Your task to perform on an android device: Clear all items from cart on target. Add amazon basics triple a to the cart on target, then select checkout. Image 0: 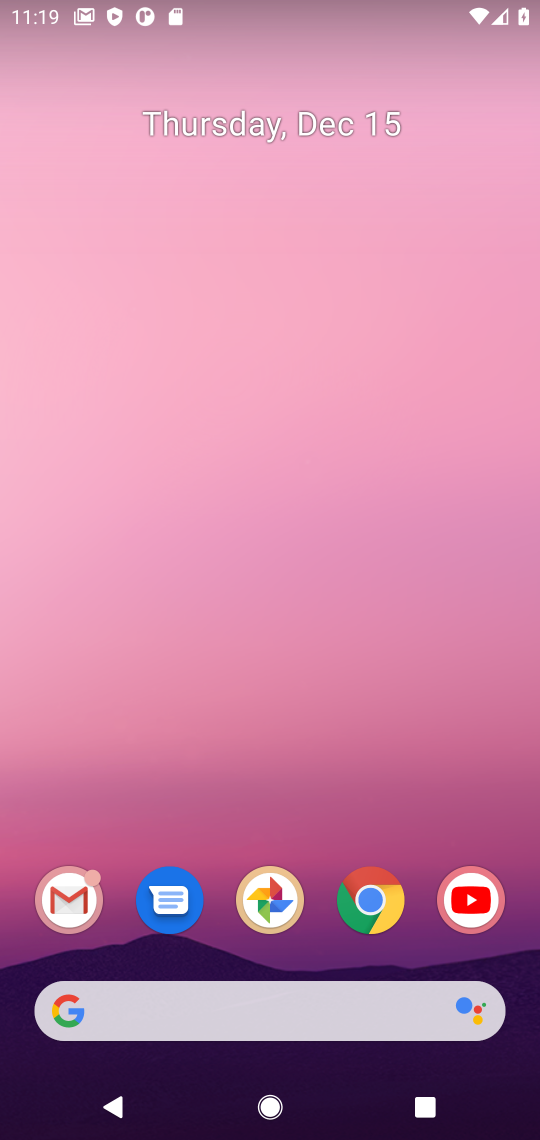
Step 0: click (364, 904)
Your task to perform on an android device: Clear all items from cart on target. Add amazon basics triple a to the cart on target, then select checkout. Image 1: 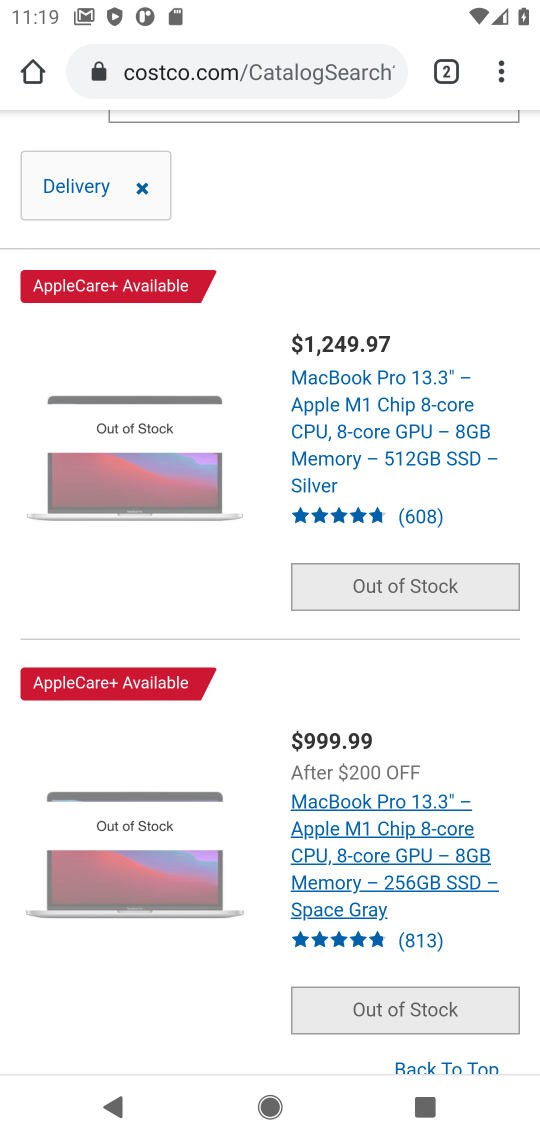
Step 1: click (310, 62)
Your task to perform on an android device: Clear all items from cart on target. Add amazon basics triple a to the cart on target, then select checkout. Image 2: 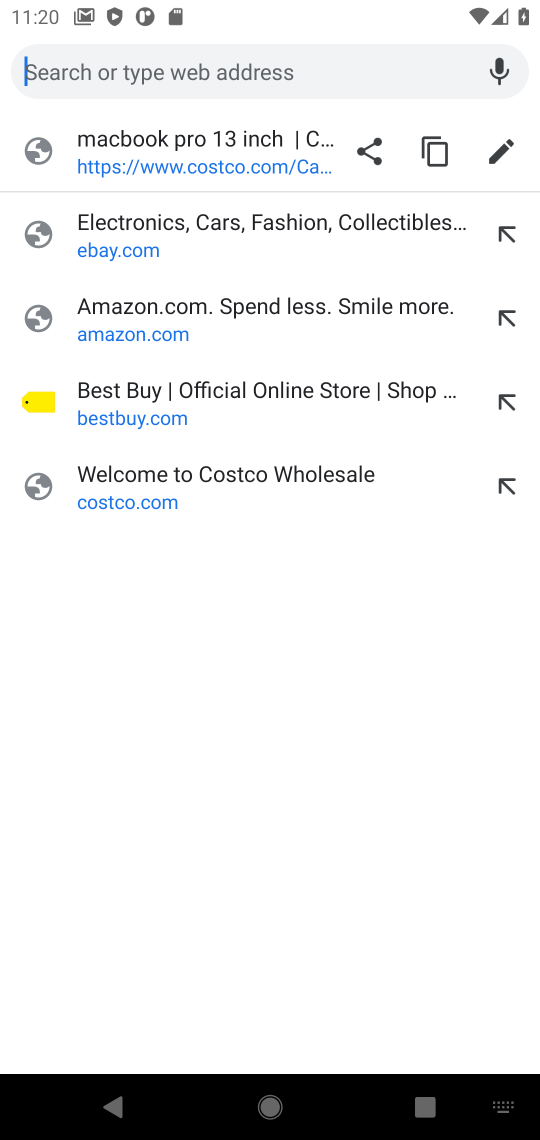
Step 2: press enter
Your task to perform on an android device: Clear all items from cart on target. Add amazon basics triple a to the cart on target, then select checkout. Image 3: 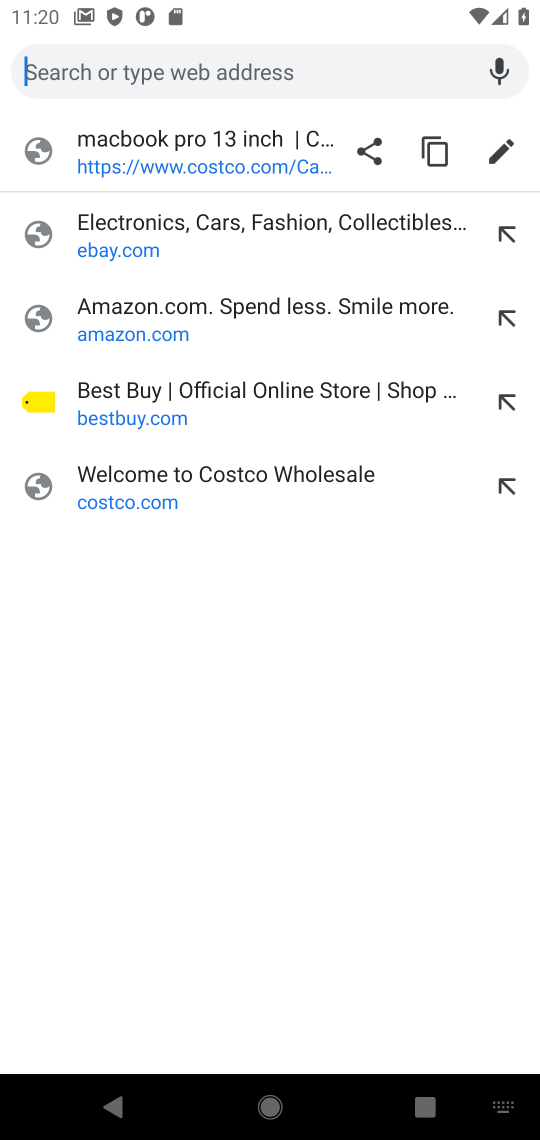
Step 3: type "target"
Your task to perform on an android device: Clear all items from cart on target. Add amazon basics triple a to the cart on target, then select checkout. Image 4: 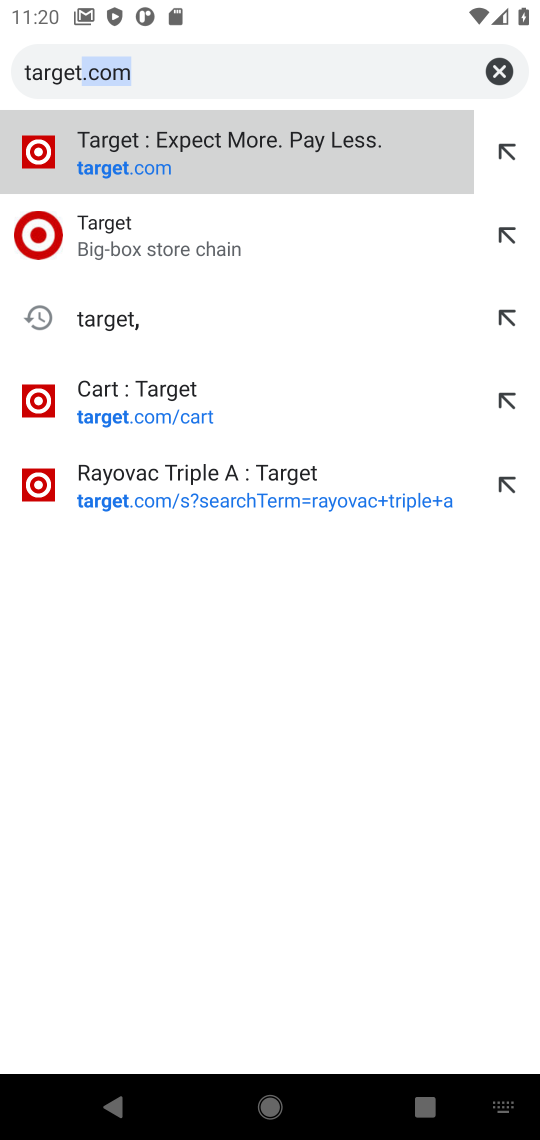
Step 4: click (299, 70)
Your task to perform on an android device: Clear all items from cart on target. Add amazon basics triple a to the cart on target, then select checkout. Image 5: 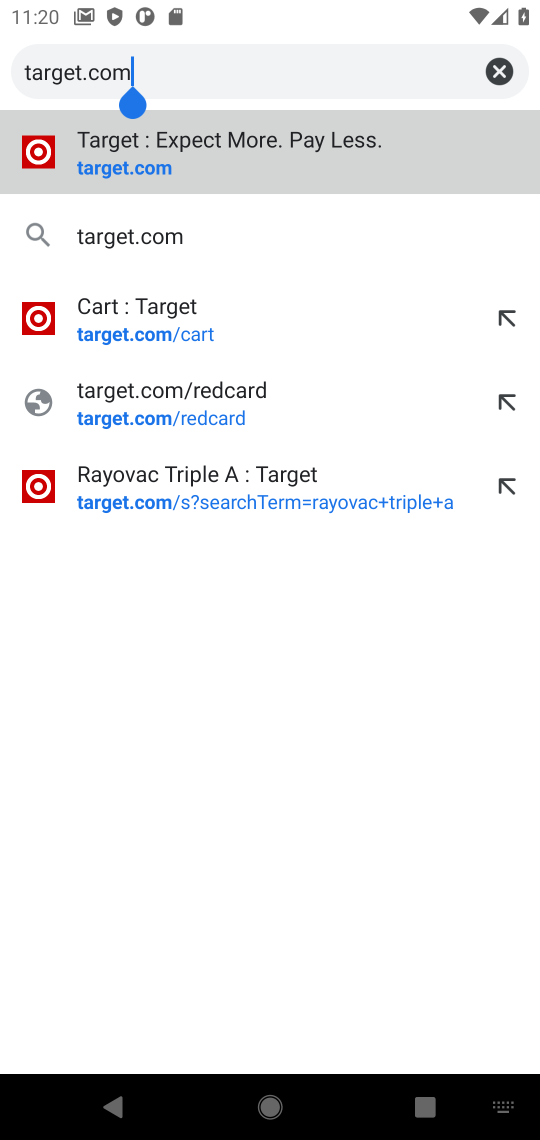
Step 5: click (141, 238)
Your task to perform on an android device: Clear all items from cart on target. Add amazon basics triple a to the cart on target, then select checkout. Image 6: 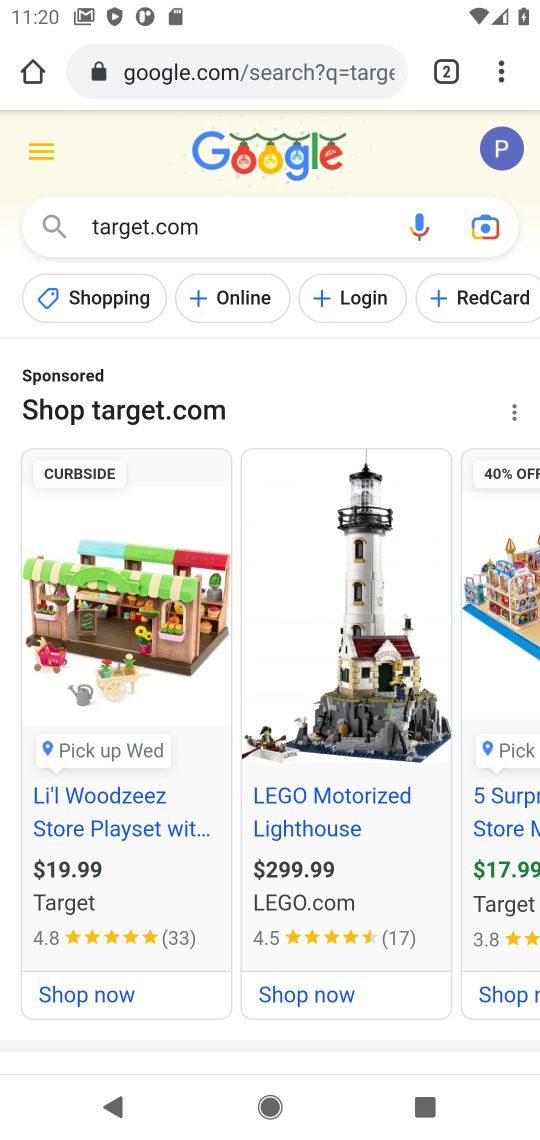
Step 6: drag from (192, 787) to (181, 438)
Your task to perform on an android device: Clear all items from cart on target. Add amazon basics triple a to the cart on target, then select checkout. Image 7: 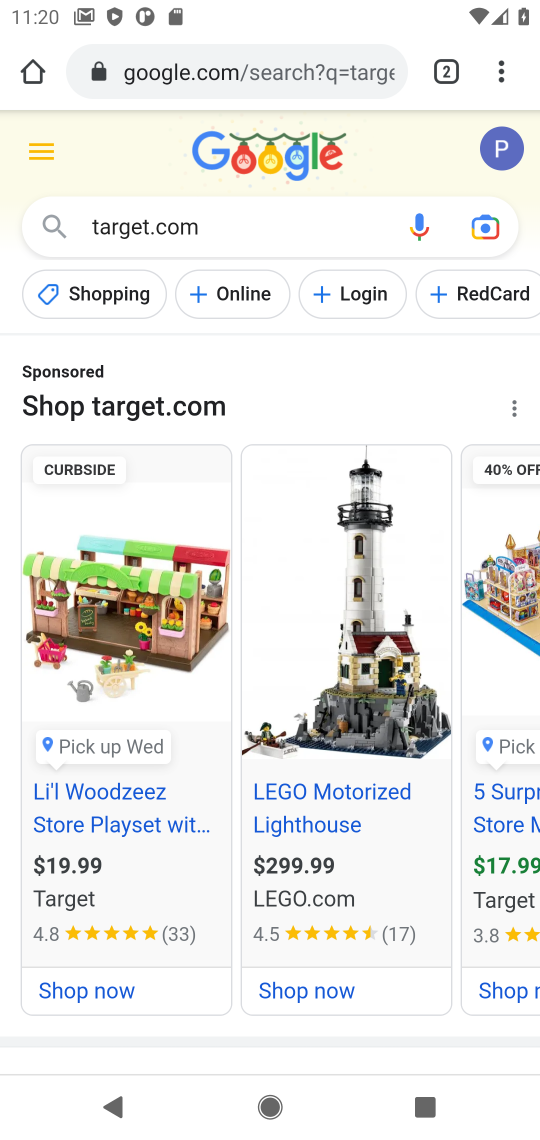
Step 7: drag from (226, 1016) to (296, 614)
Your task to perform on an android device: Clear all items from cart on target. Add amazon basics triple a to the cart on target, then select checkout. Image 8: 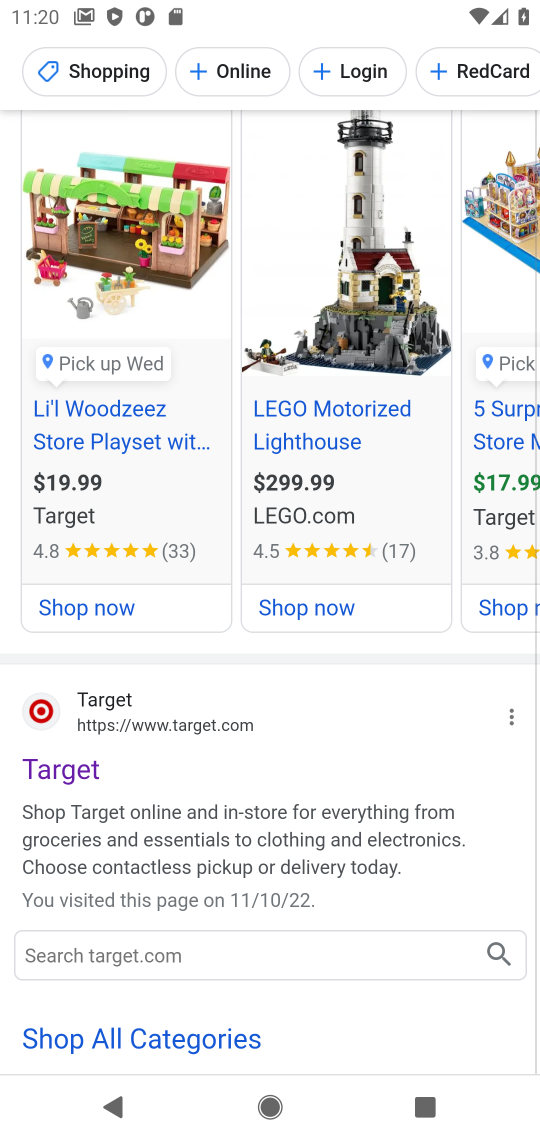
Step 8: click (229, 719)
Your task to perform on an android device: Clear all items from cart on target. Add amazon basics triple a to the cart on target, then select checkout. Image 9: 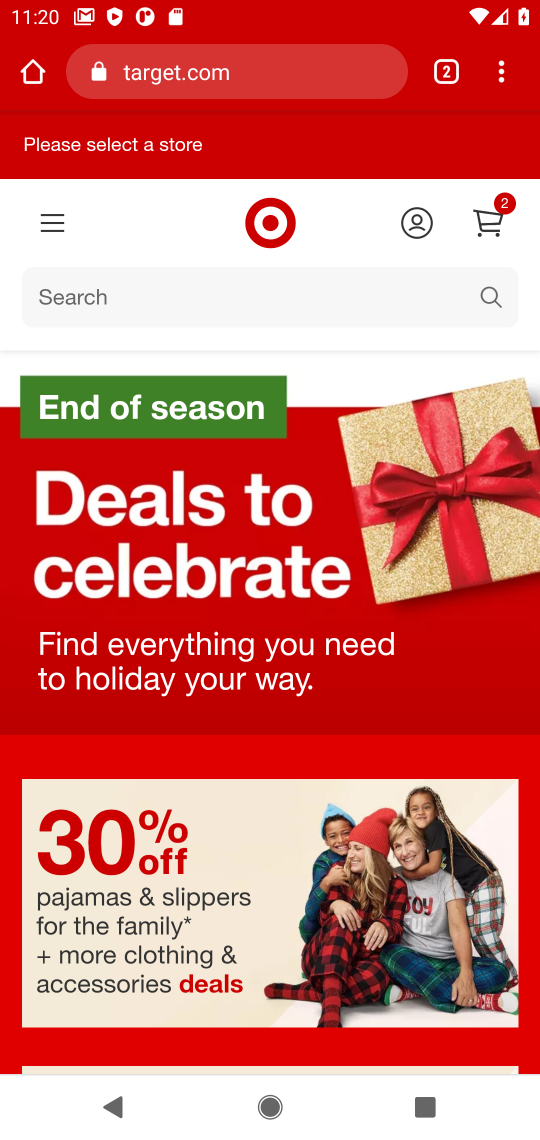
Step 9: click (495, 225)
Your task to perform on an android device: Clear all items from cart on target. Add amazon basics triple a to the cart on target, then select checkout. Image 10: 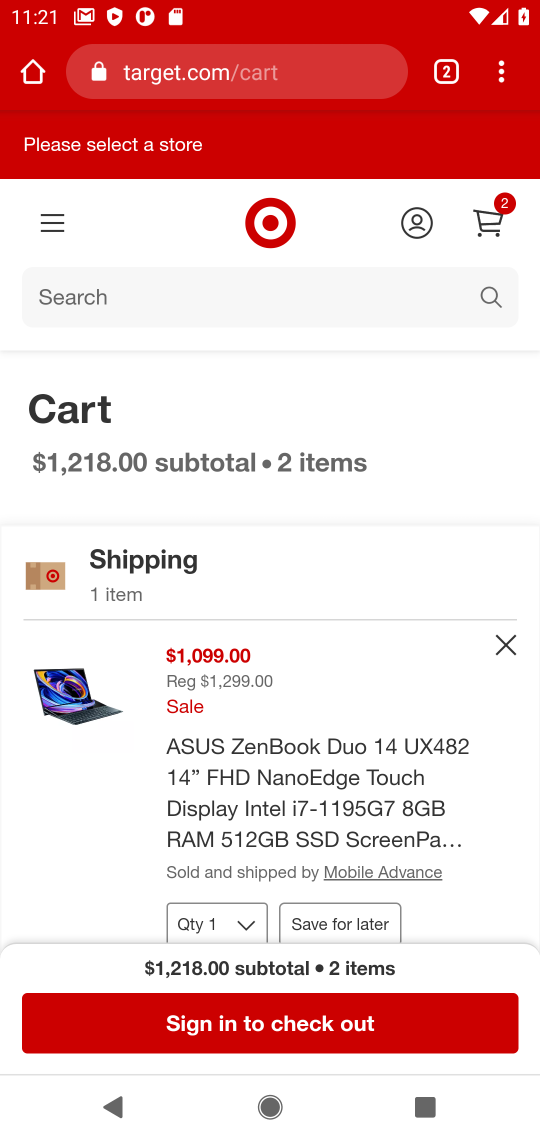
Step 10: click (511, 645)
Your task to perform on an android device: Clear all items from cart on target. Add amazon basics triple a to the cart on target, then select checkout. Image 11: 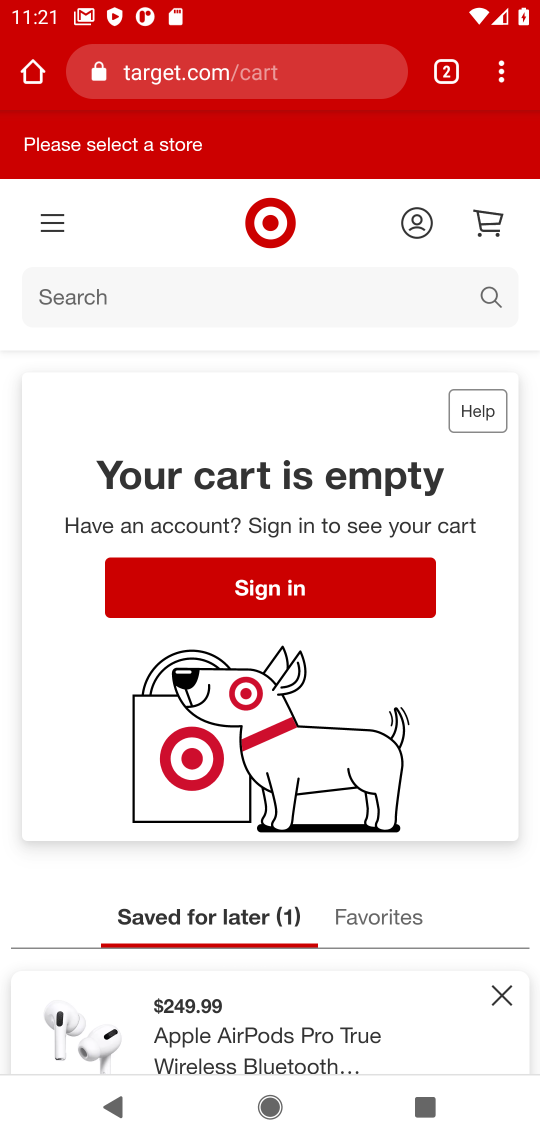
Step 11: click (489, 293)
Your task to perform on an android device: Clear all items from cart on target. Add amazon basics triple a to the cart on target, then select checkout. Image 12: 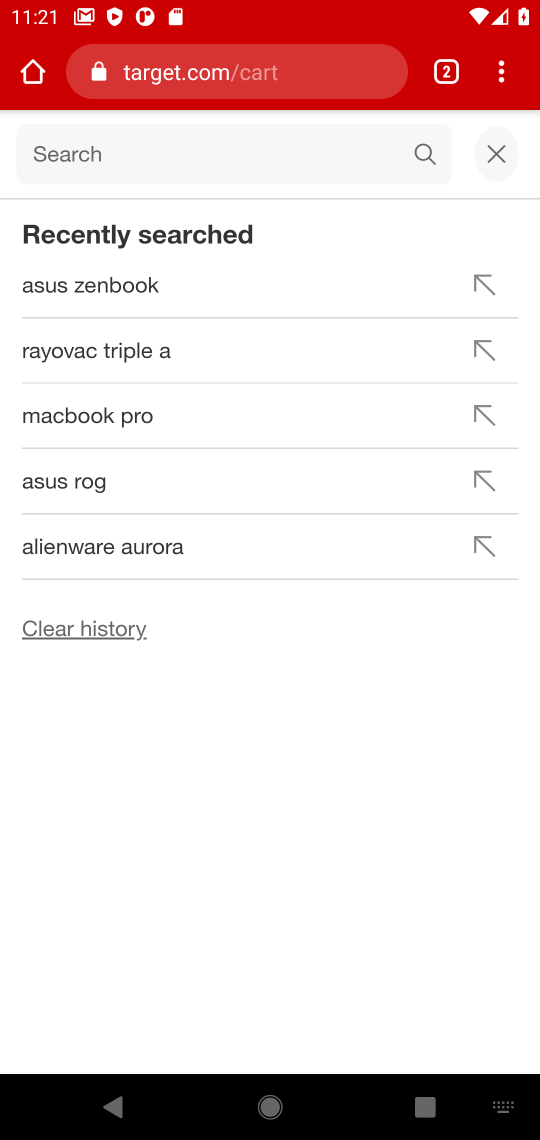
Step 12: type "amazon basics triple a"
Your task to perform on an android device: Clear all items from cart on target. Add amazon basics triple a to the cart on target, then select checkout. Image 13: 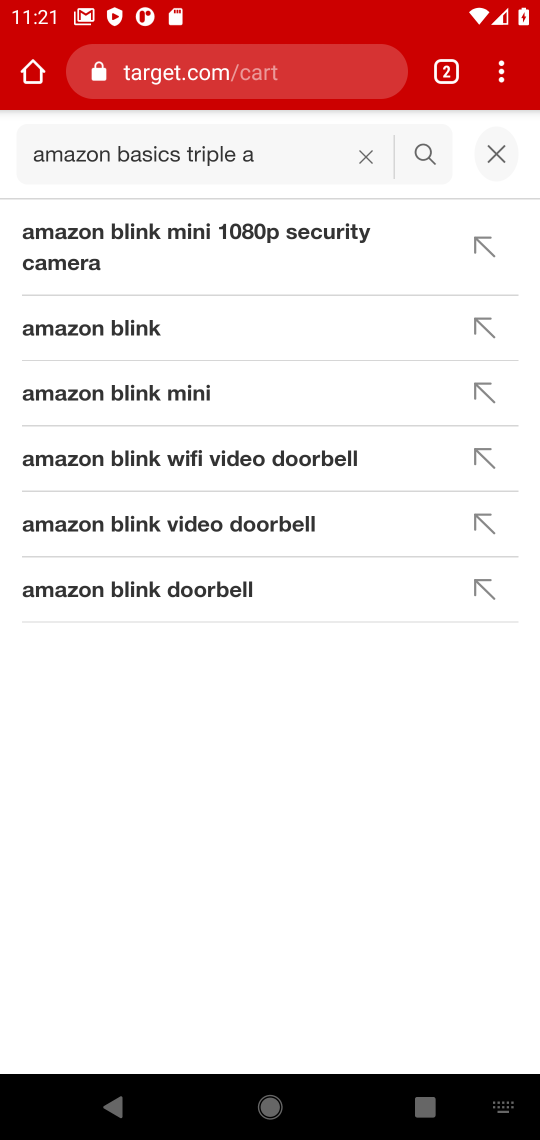
Step 13: click (418, 153)
Your task to perform on an android device: Clear all items from cart on target. Add amazon basics triple a to the cart on target, then select checkout. Image 14: 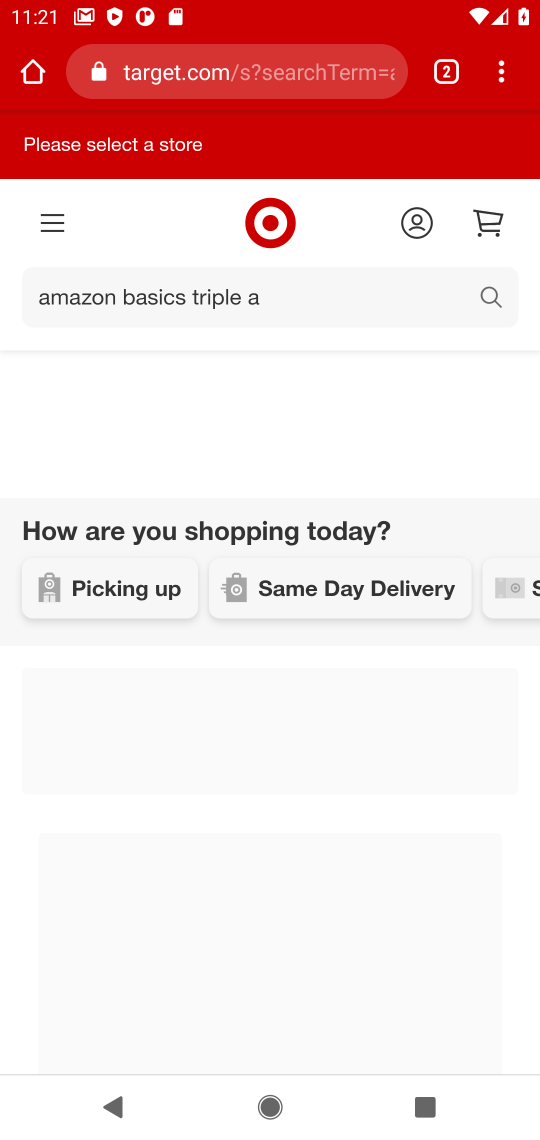
Step 14: task complete